Your task to perform on an android device: Go to network settings Image 0: 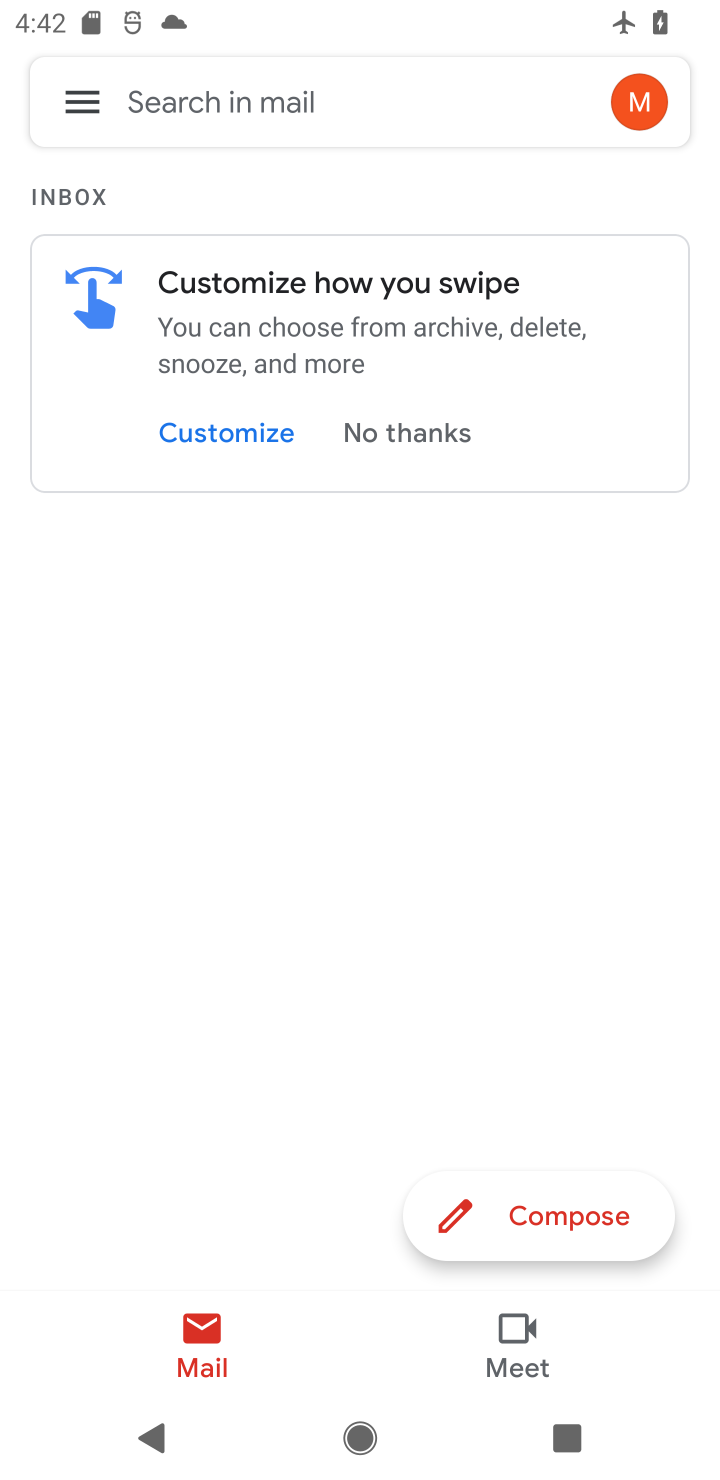
Step 0: press back button
Your task to perform on an android device: Go to network settings Image 1: 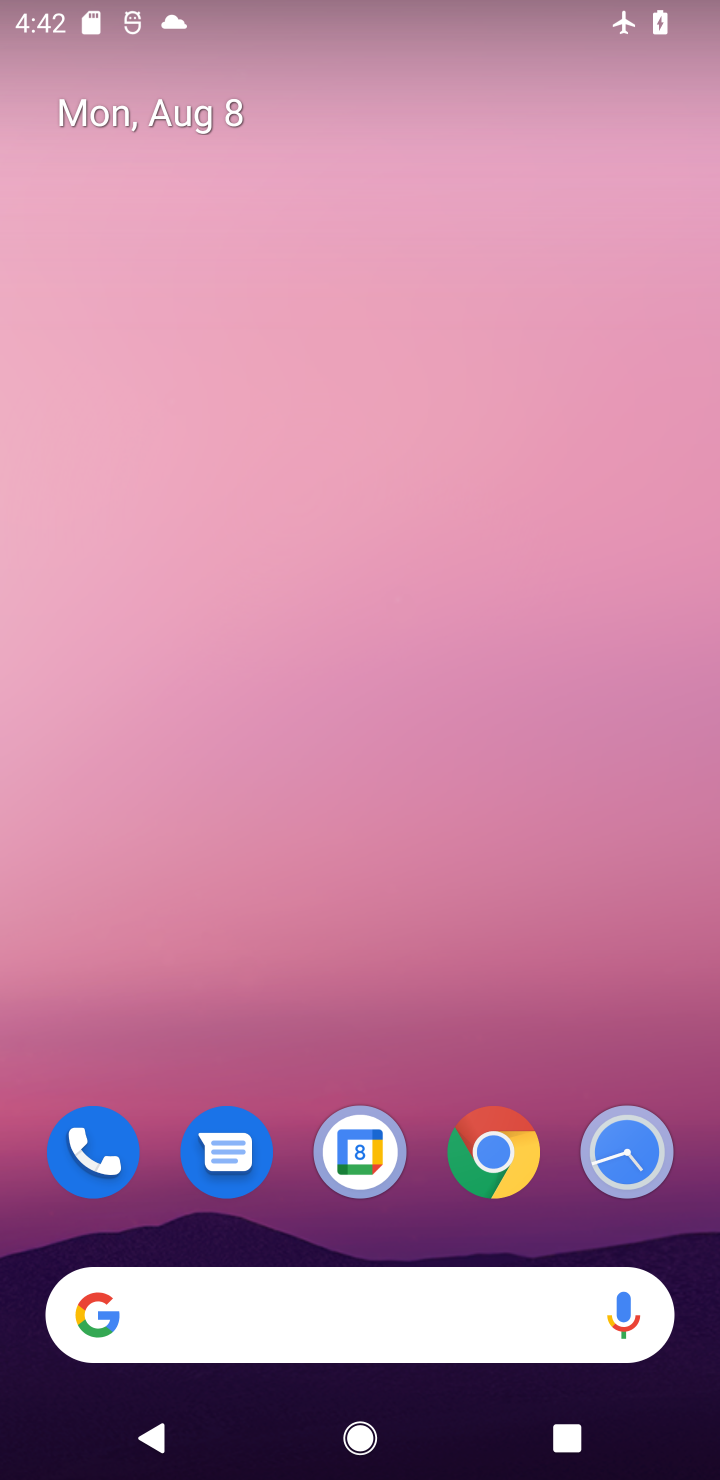
Step 1: drag from (340, 1088) to (464, 34)
Your task to perform on an android device: Go to network settings Image 2: 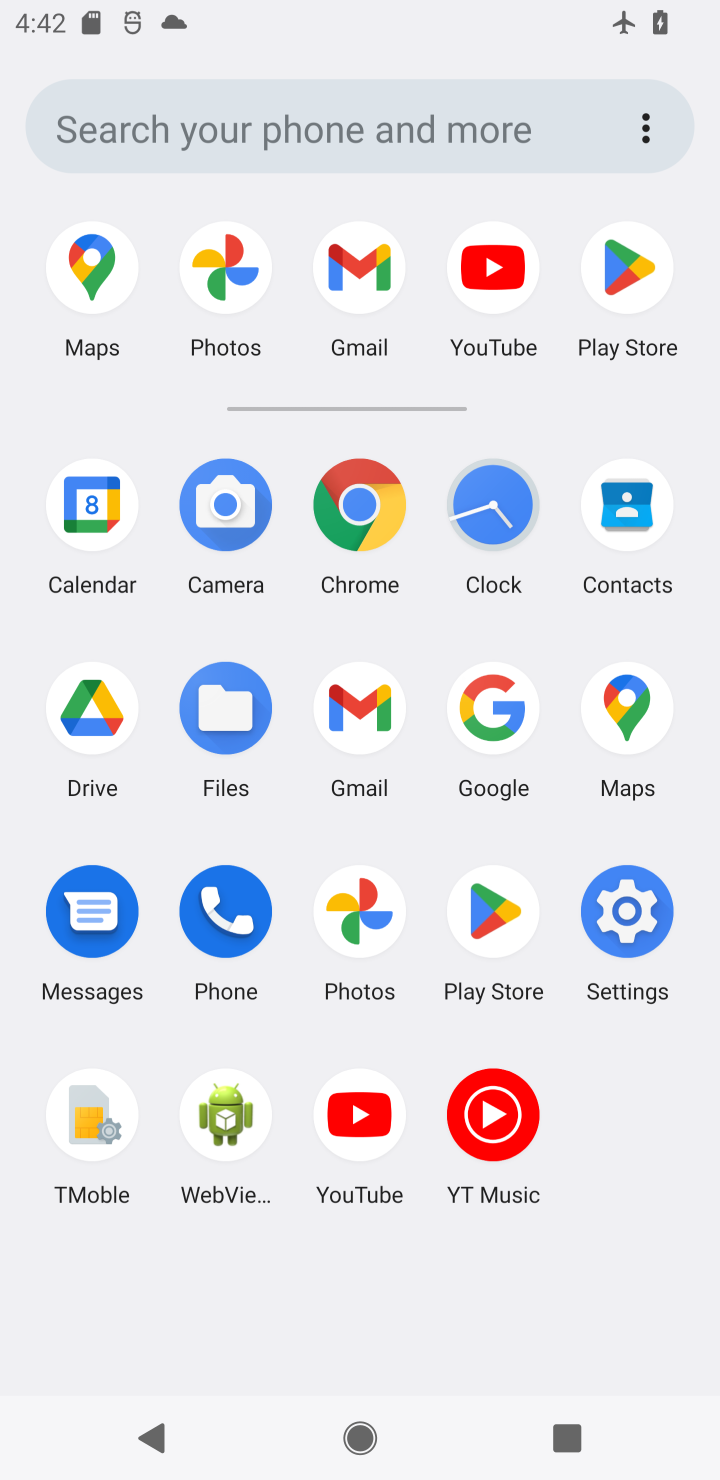
Step 2: click (647, 901)
Your task to perform on an android device: Go to network settings Image 3: 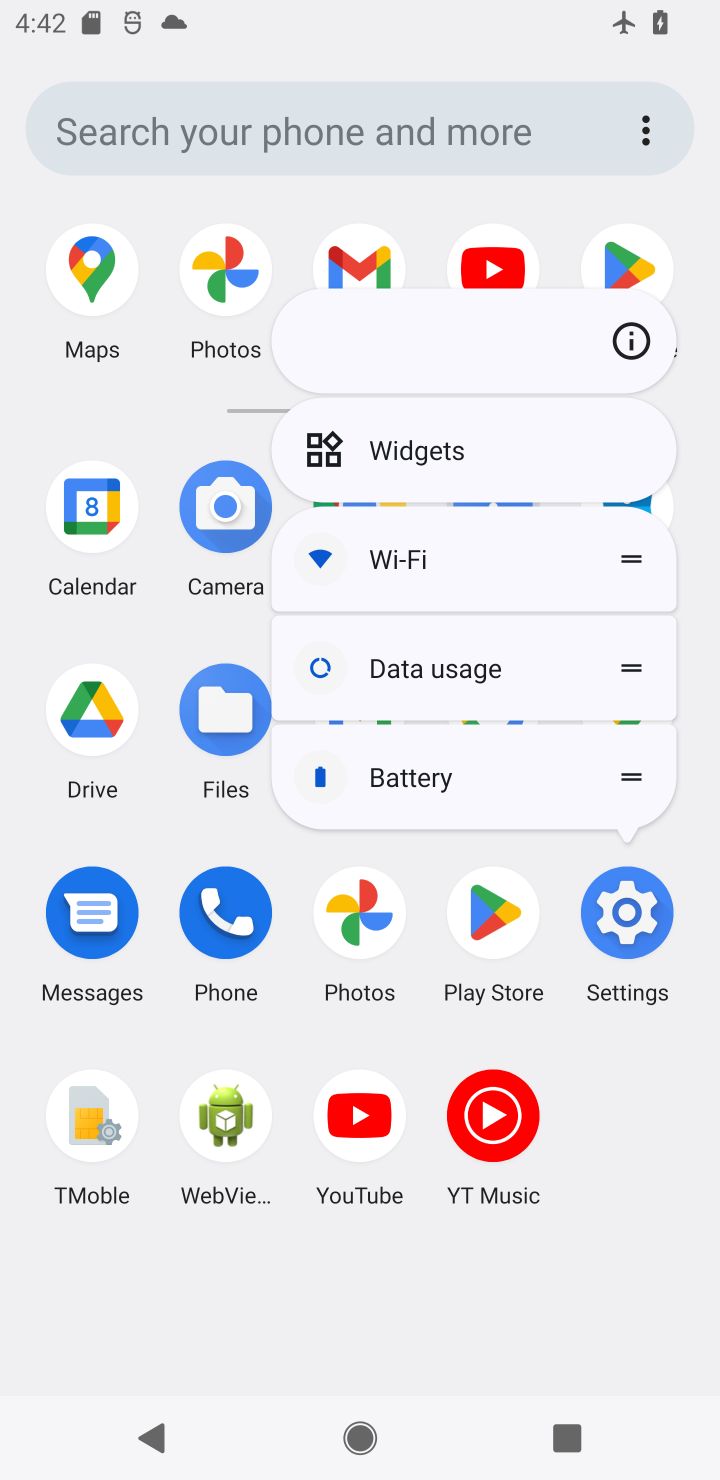
Step 3: click (627, 917)
Your task to perform on an android device: Go to network settings Image 4: 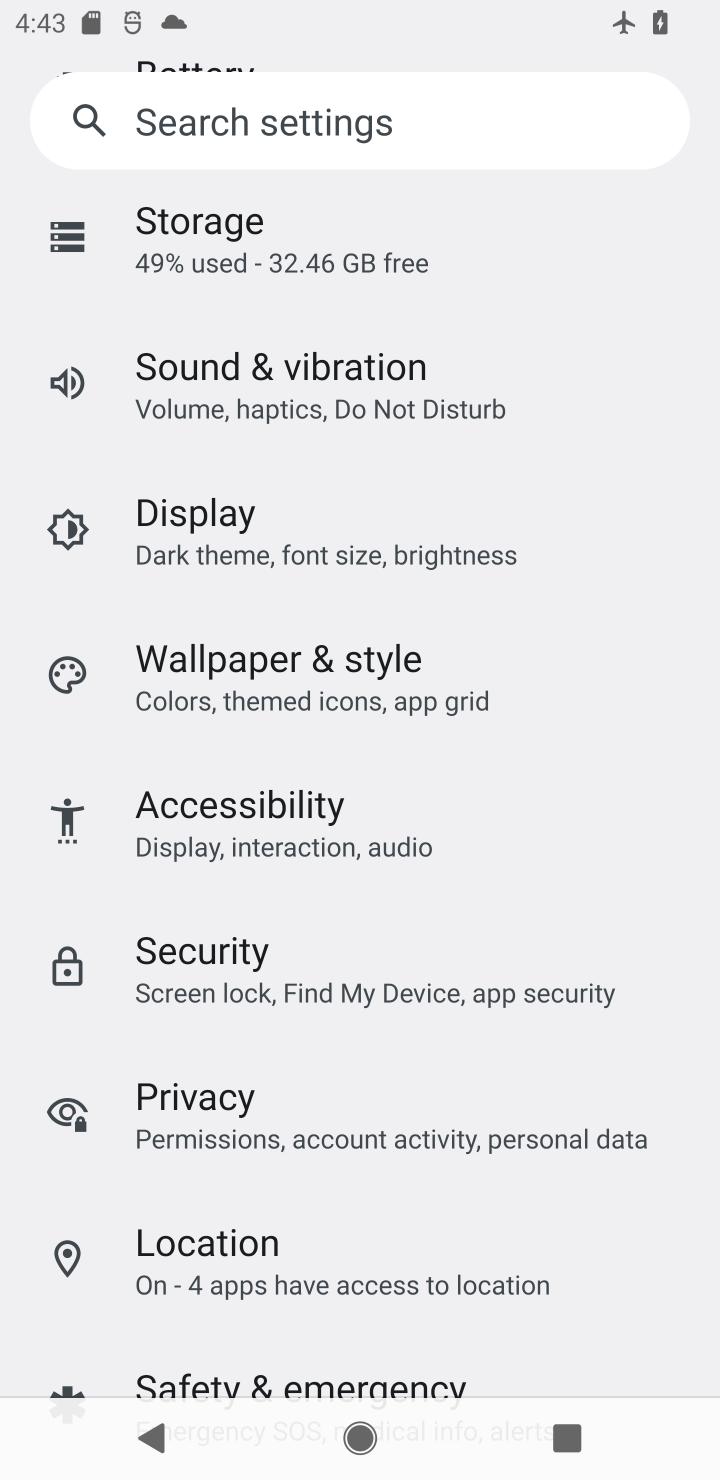
Step 4: drag from (348, 394) to (506, 1245)
Your task to perform on an android device: Go to network settings Image 5: 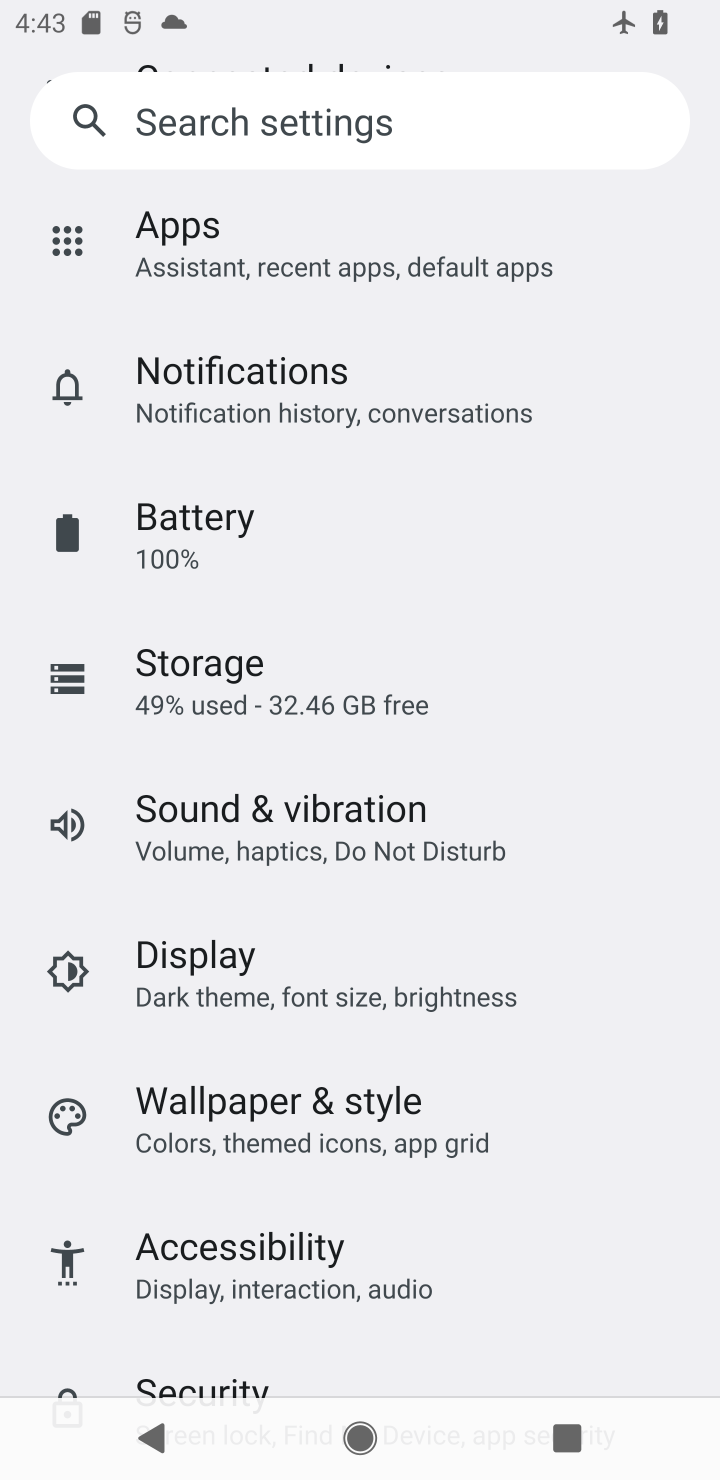
Step 5: drag from (388, 629) to (358, 1331)
Your task to perform on an android device: Go to network settings Image 6: 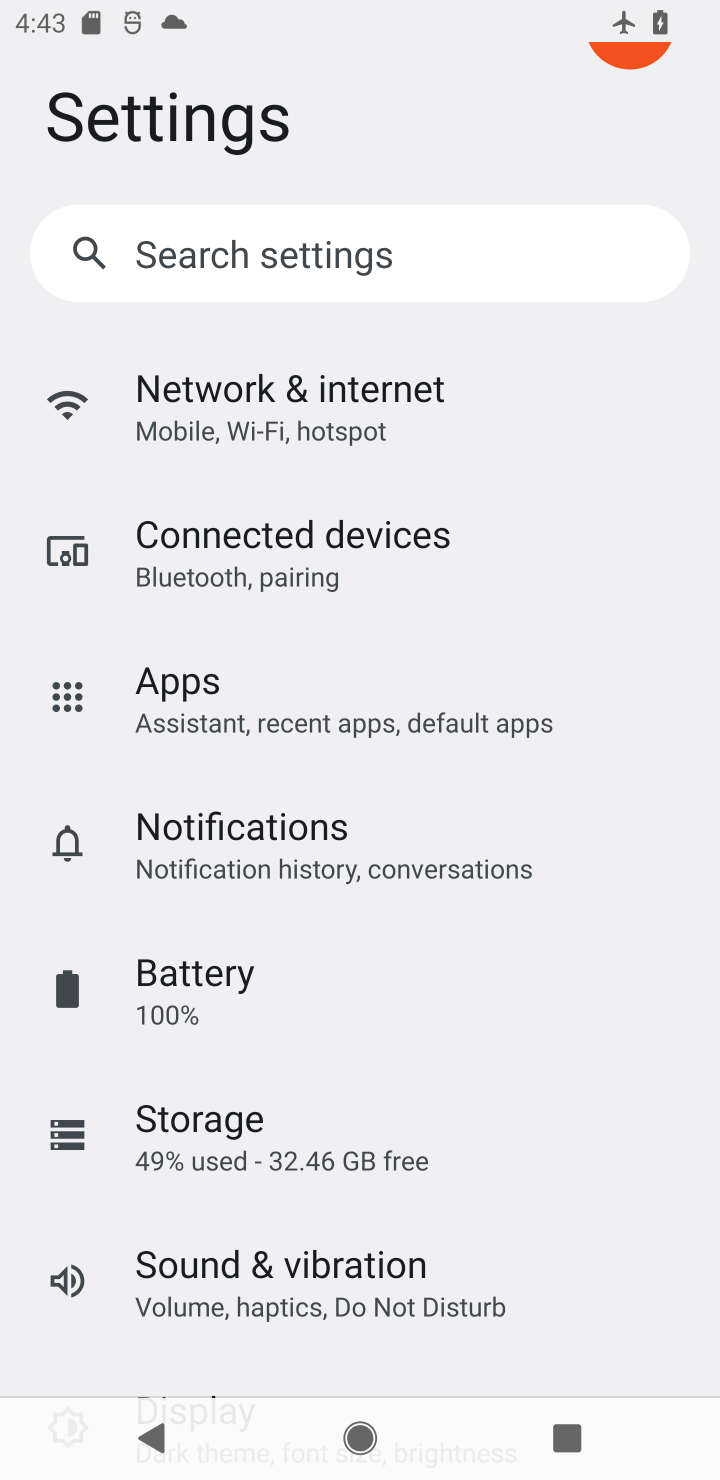
Step 6: click (292, 404)
Your task to perform on an android device: Go to network settings Image 7: 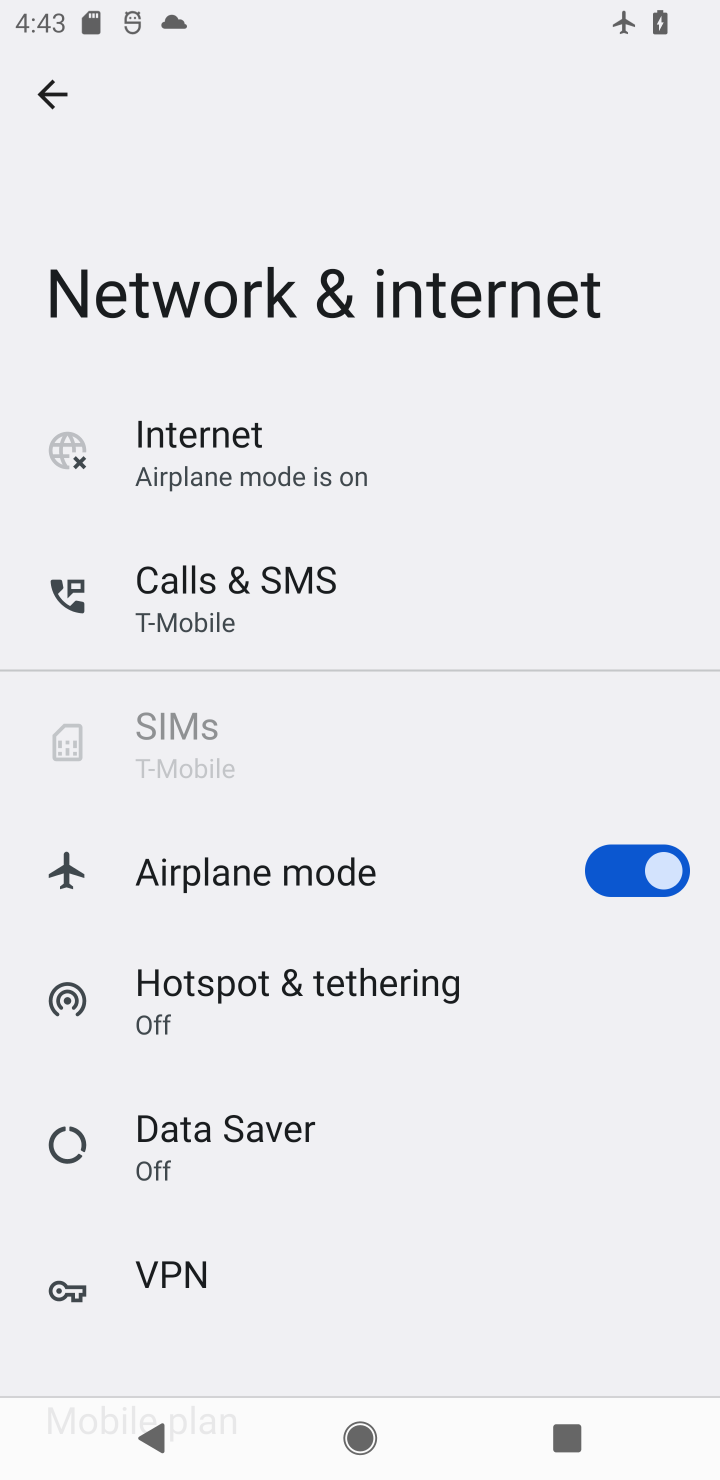
Step 7: task complete